Your task to perform on an android device: delete a single message in the gmail app Image 0: 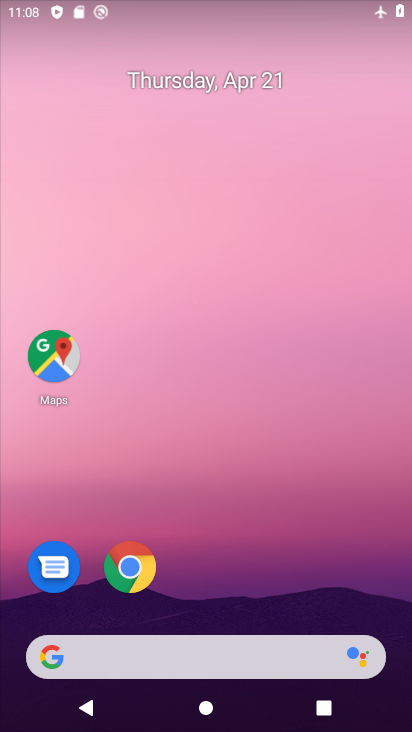
Step 0: click (69, 360)
Your task to perform on an android device: delete a single message in the gmail app Image 1: 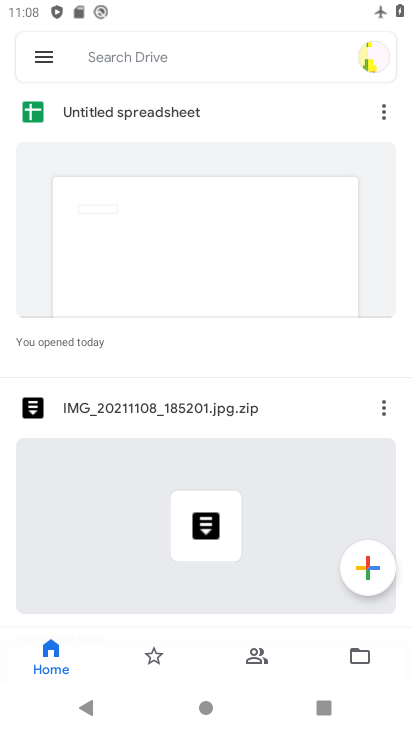
Step 1: press home button
Your task to perform on an android device: delete a single message in the gmail app Image 2: 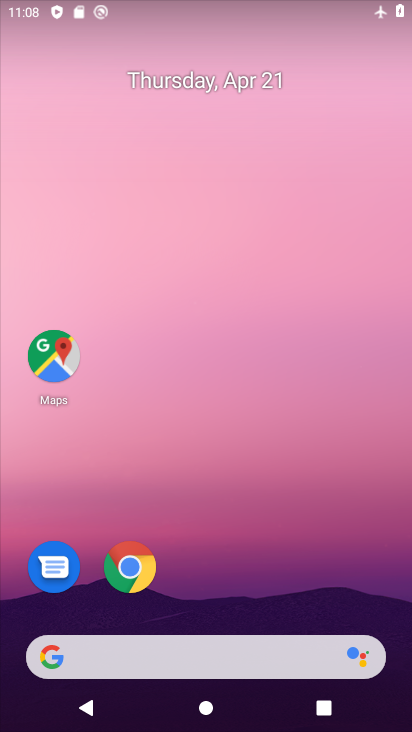
Step 2: drag from (279, 586) to (300, 64)
Your task to perform on an android device: delete a single message in the gmail app Image 3: 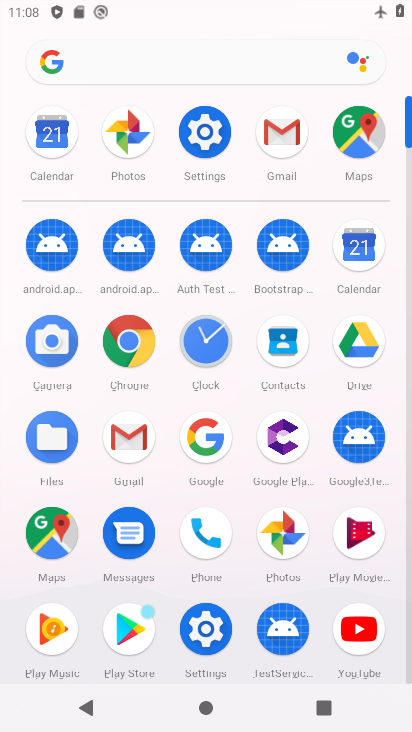
Step 3: click (125, 451)
Your task to perform on an android device: delete a single message in the gmail app Image 4: 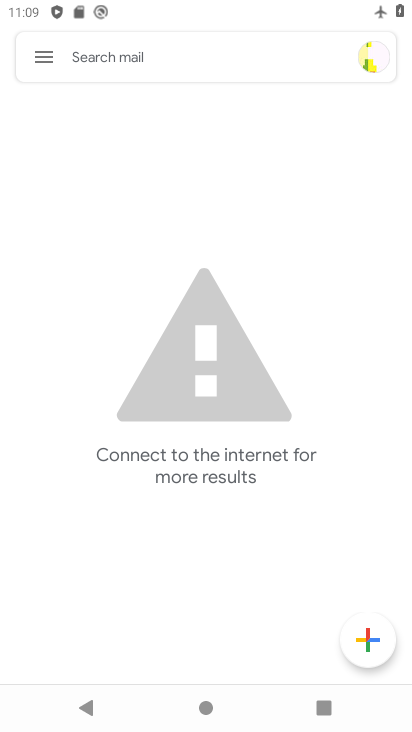
Step 4: task complete